Your task to perform on an android device: Open sound settings Image 0: 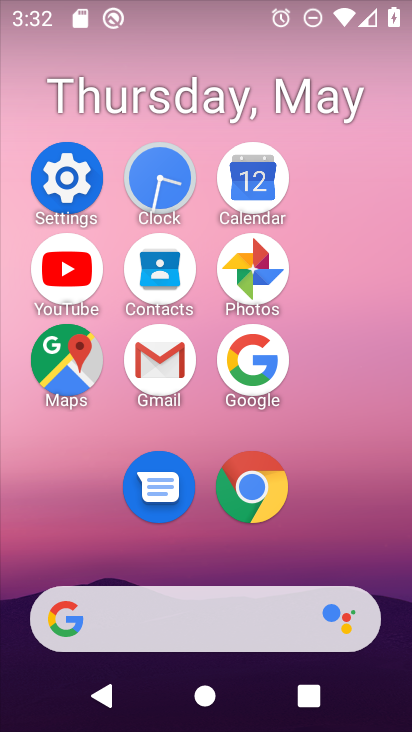
Step 0: click (91, 188)
Your task to perform on an android device: Open sound settings Image 1: 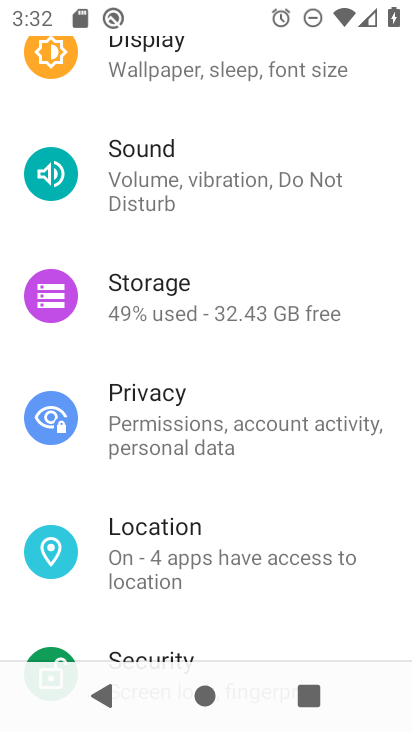
Step 1: click (222, 173)
Your task to perform on an android device: Open sound settings Image 2: 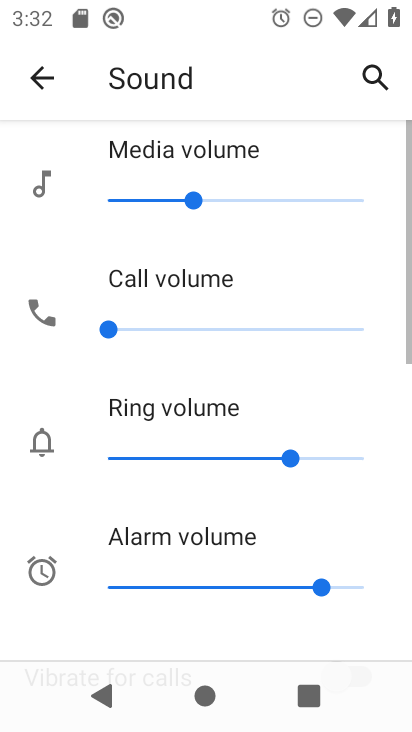
Step 2: task complete